Your task to perform on an android device: Search for flights from Mexico city to Boston Image 0: 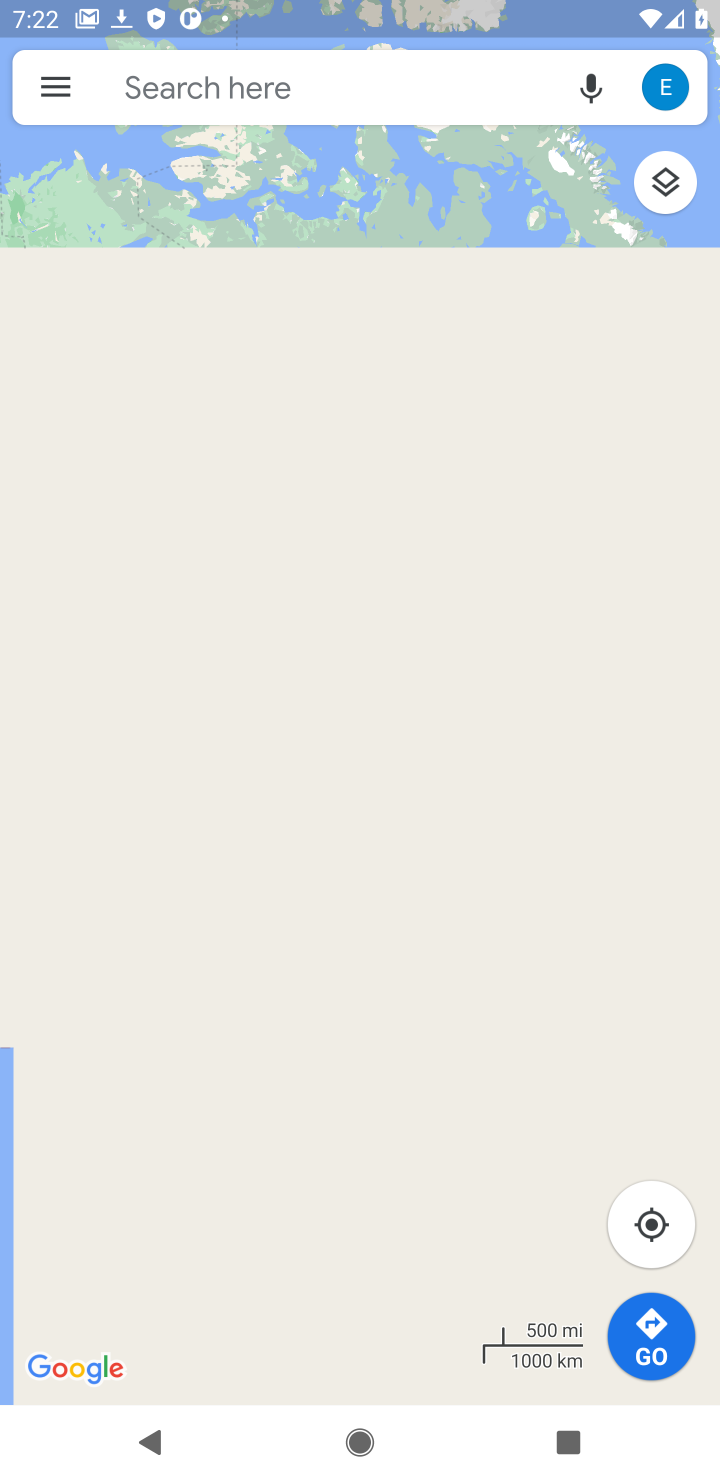
Step 0: press home button
Your task to perform on an android device: Search for flights from Mexico city to Boston Image 1: 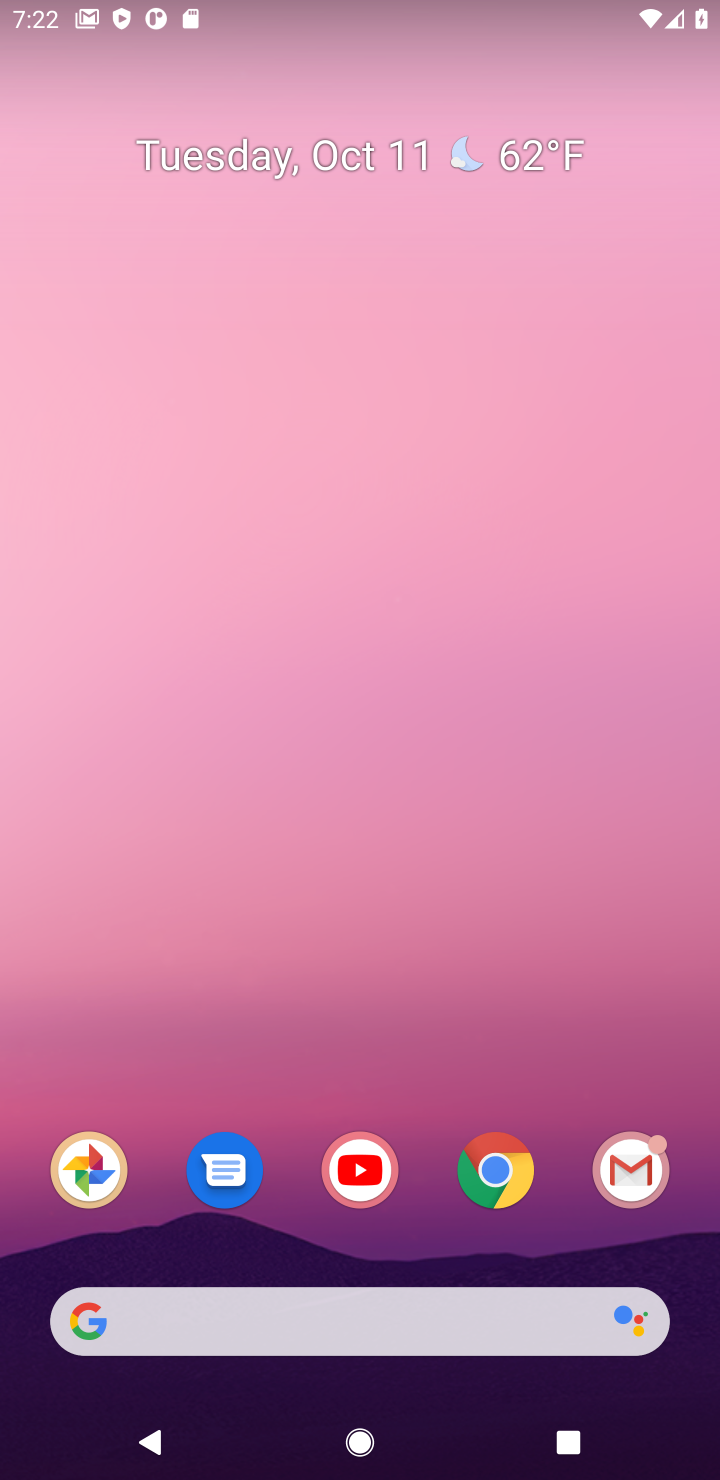
Step 1: drag from (329, 1378) to (357, 389)
Your task to perform on an android device: Search for flights from Mexico city to Boston Image 2: 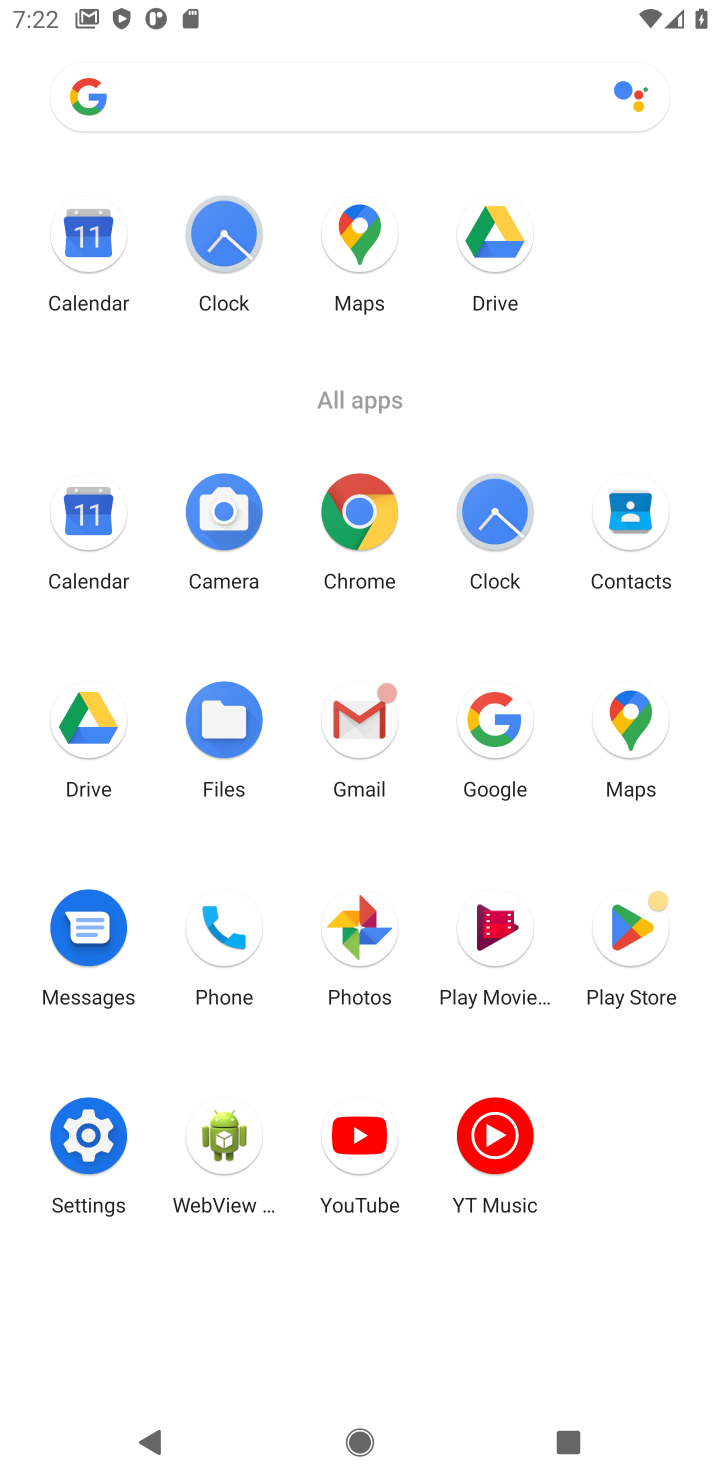
Step 2: click (483, 726)
Your task to perform on an android device: Search for flights from Mexico city to Boston Image 3: 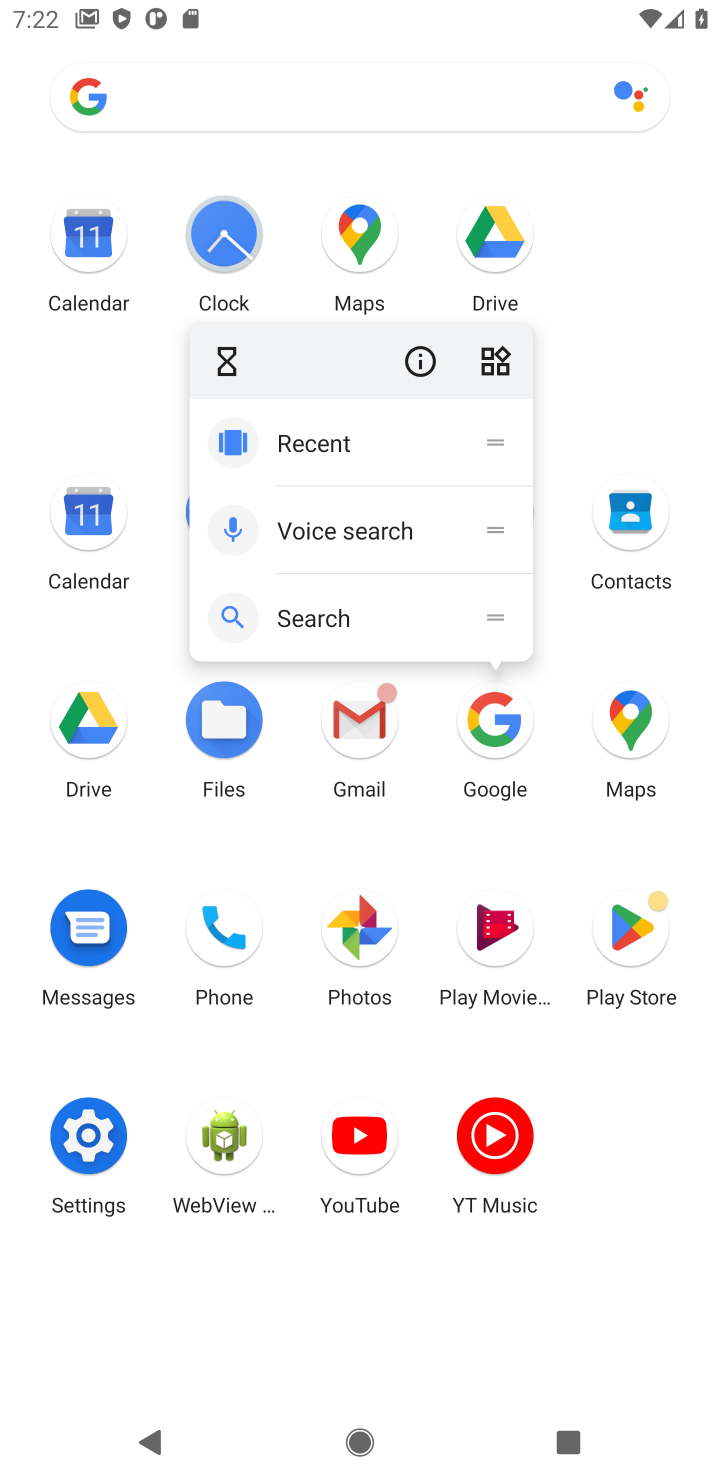
Step 3: click (494, 705)
Your task to perform on an android device: Search for flights from Mexico city to Boston Image 4: 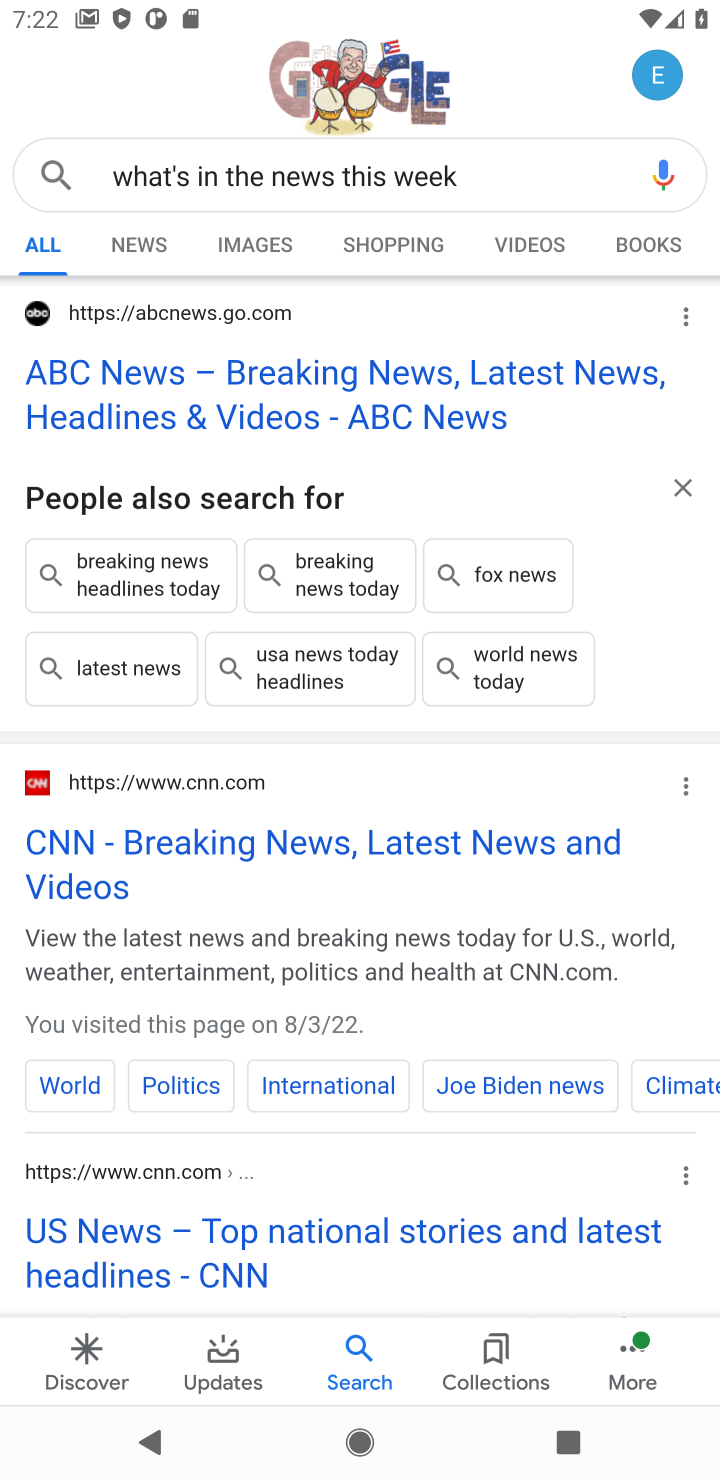
Step 4: click (416, 139)
Your task to perform on an android device: Search for flights from Mexico city to Boston Image 5: 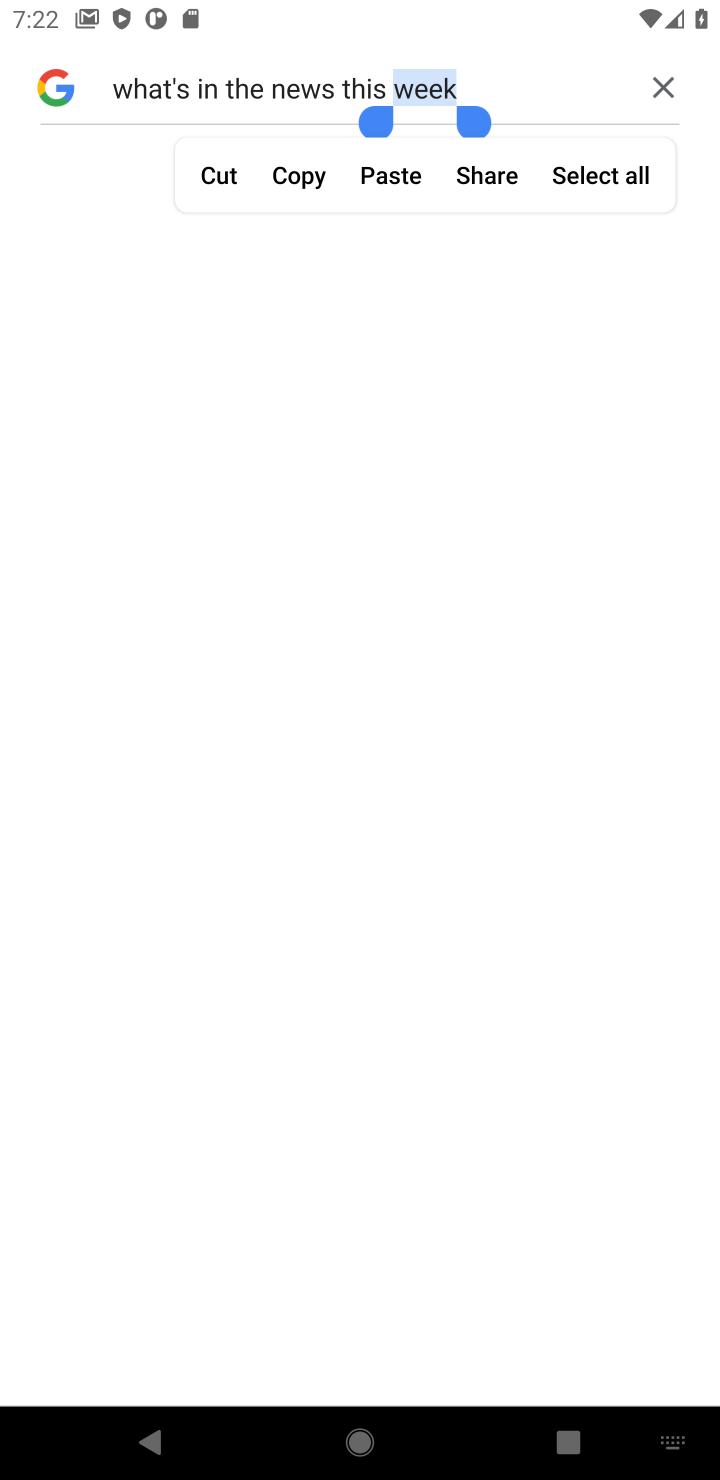
Step 5: click (455, 156)
Your task to perform on an android device: Search for flights from Mexico city to Boston Image 6: 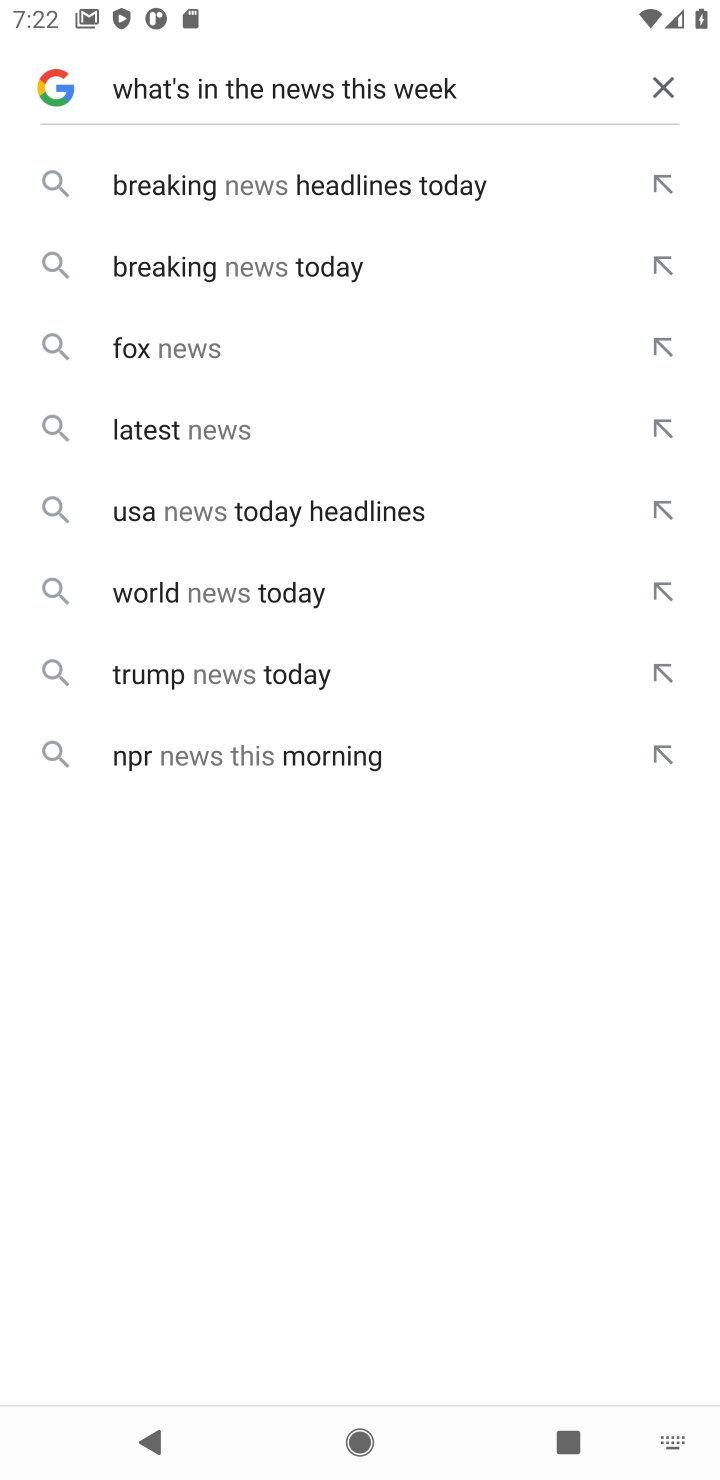
Step 6: click (663, 88)
Your task to perform on an android device: Search for flights from Mexico city to Boston Image 7: 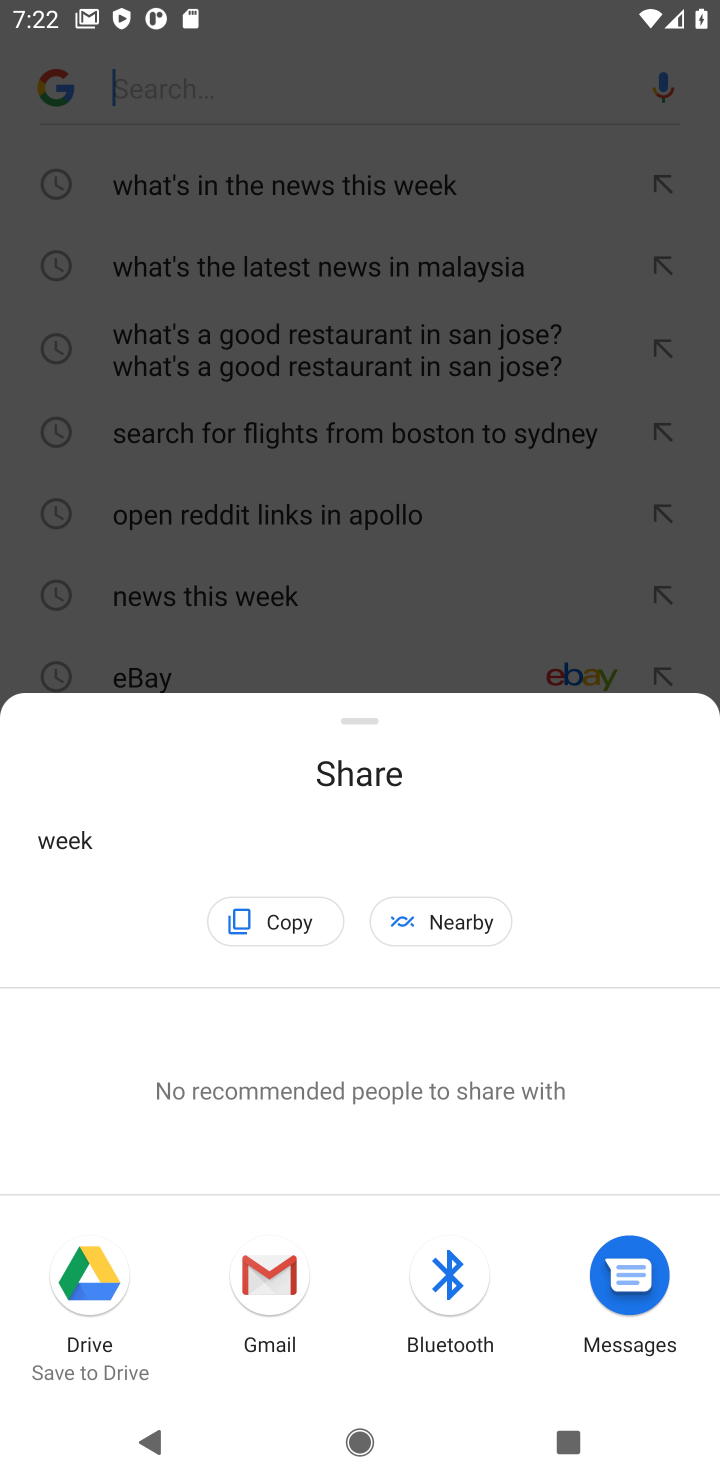
Step 7: press back button
Your task to perform on an android device: Search for flights from Mexico city to Boston Image 8: 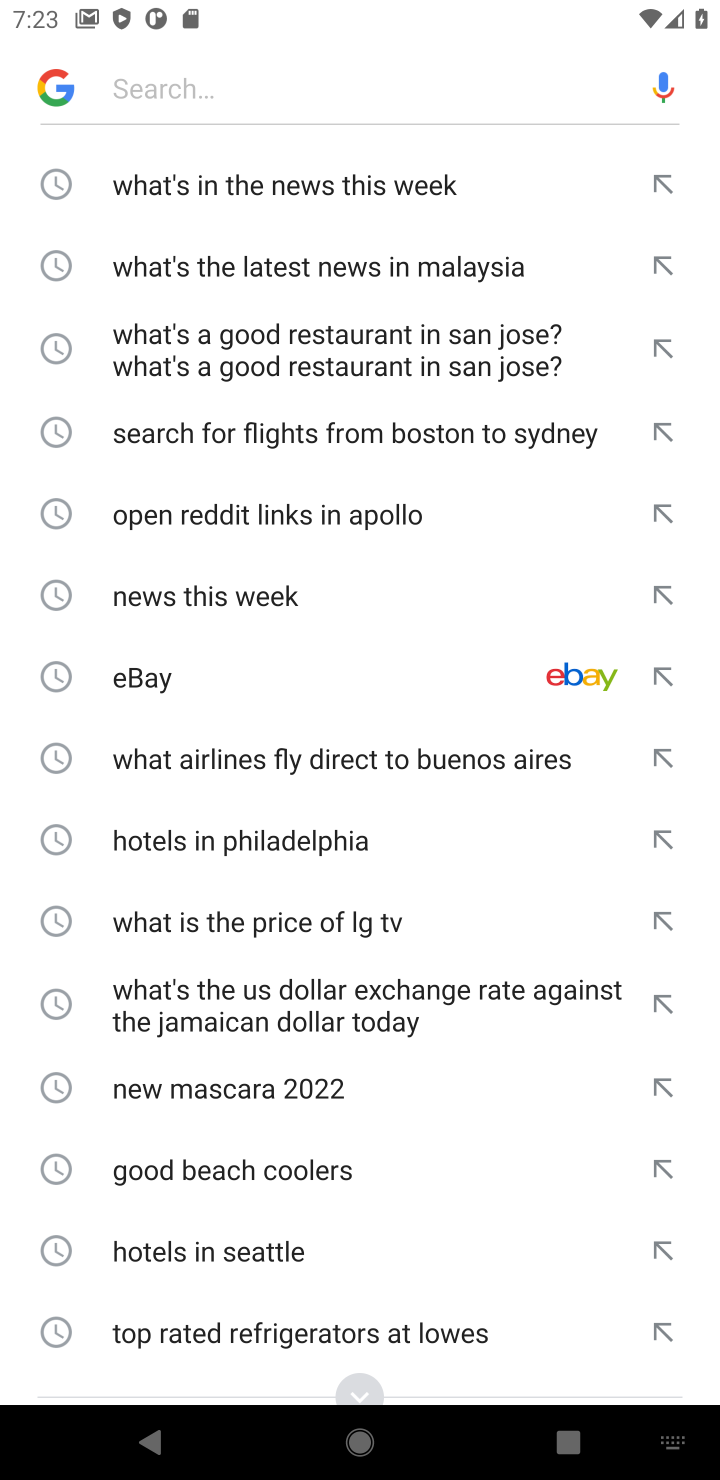
Step 8: click (408, 55)
Your task to perform on an android device: Search for flights from Mexico city to Boston Image 9: 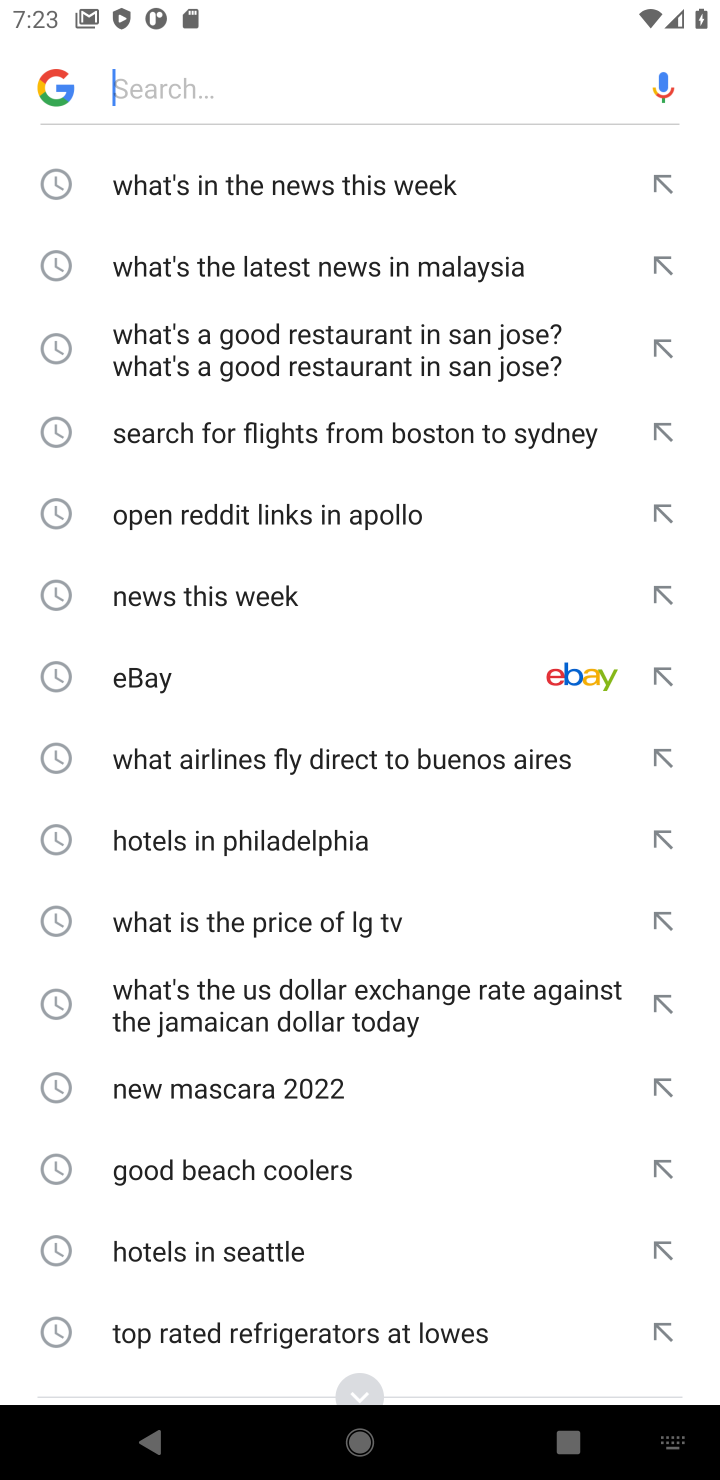
Step 9: type "Search for flights from Mexico city to Boston "
Your task to perform on an android device: Search for flights from Mexico city to Boston Image 10: 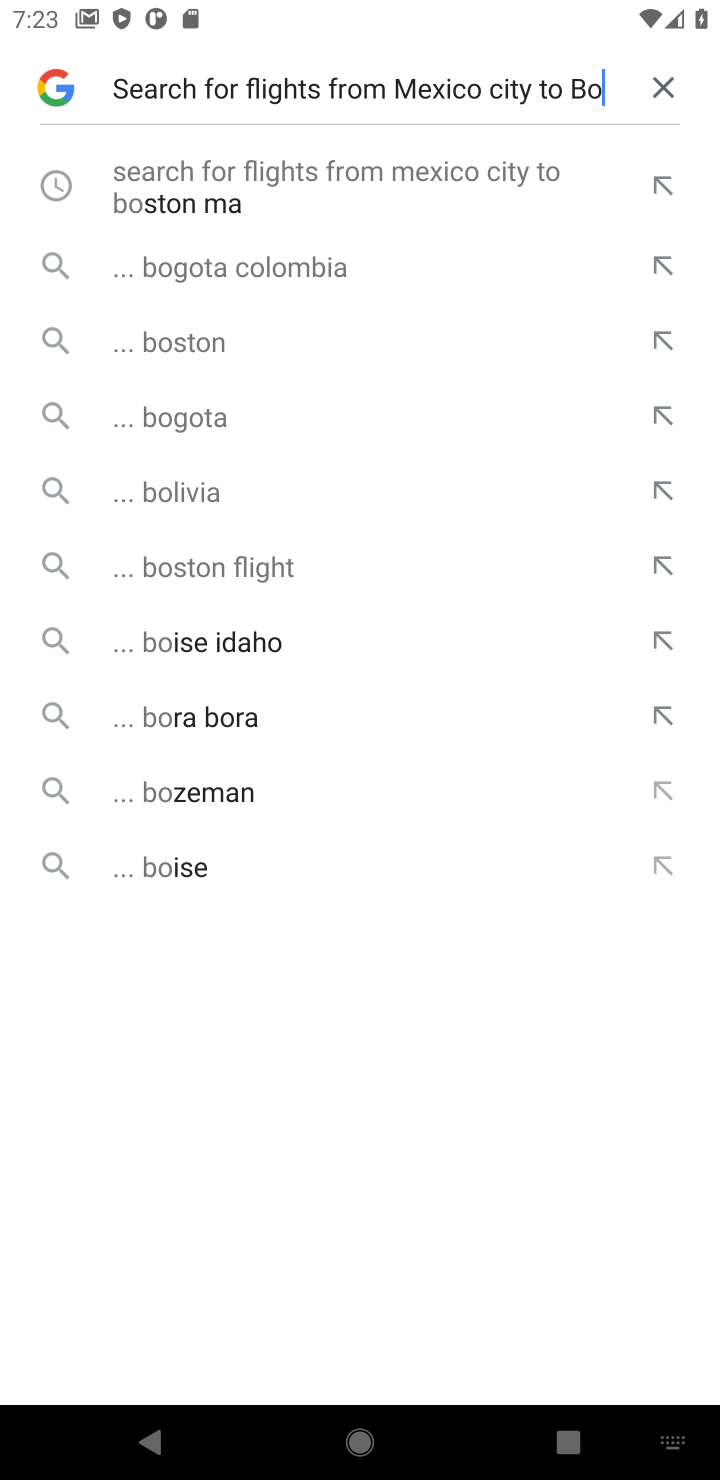
Step 10: click (324, 185)
Your task to perform on an android device: Search for flights from Mexico city to Boston Image 11: 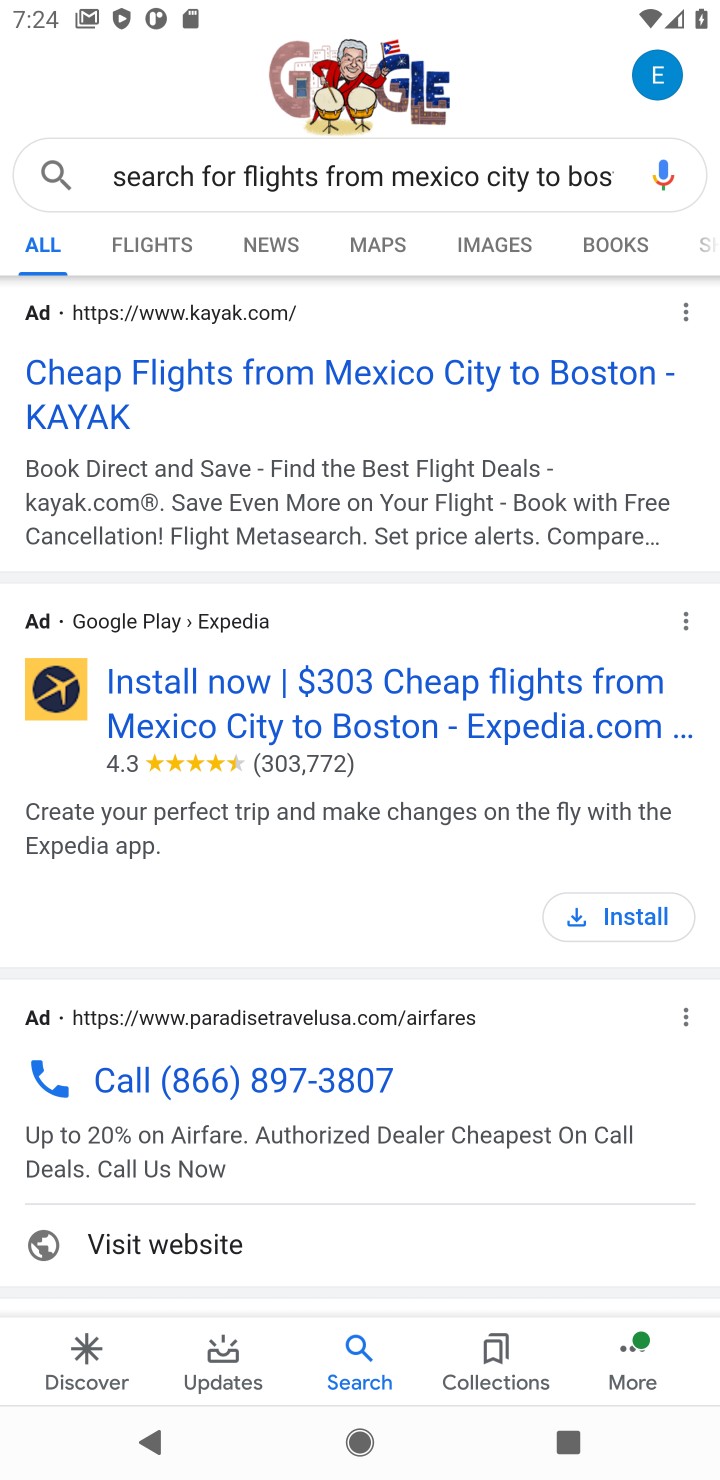
Step 11: click (317, 378)
Your task to perform on an android device: Search for flights from Mexico city to Boston Image 12: 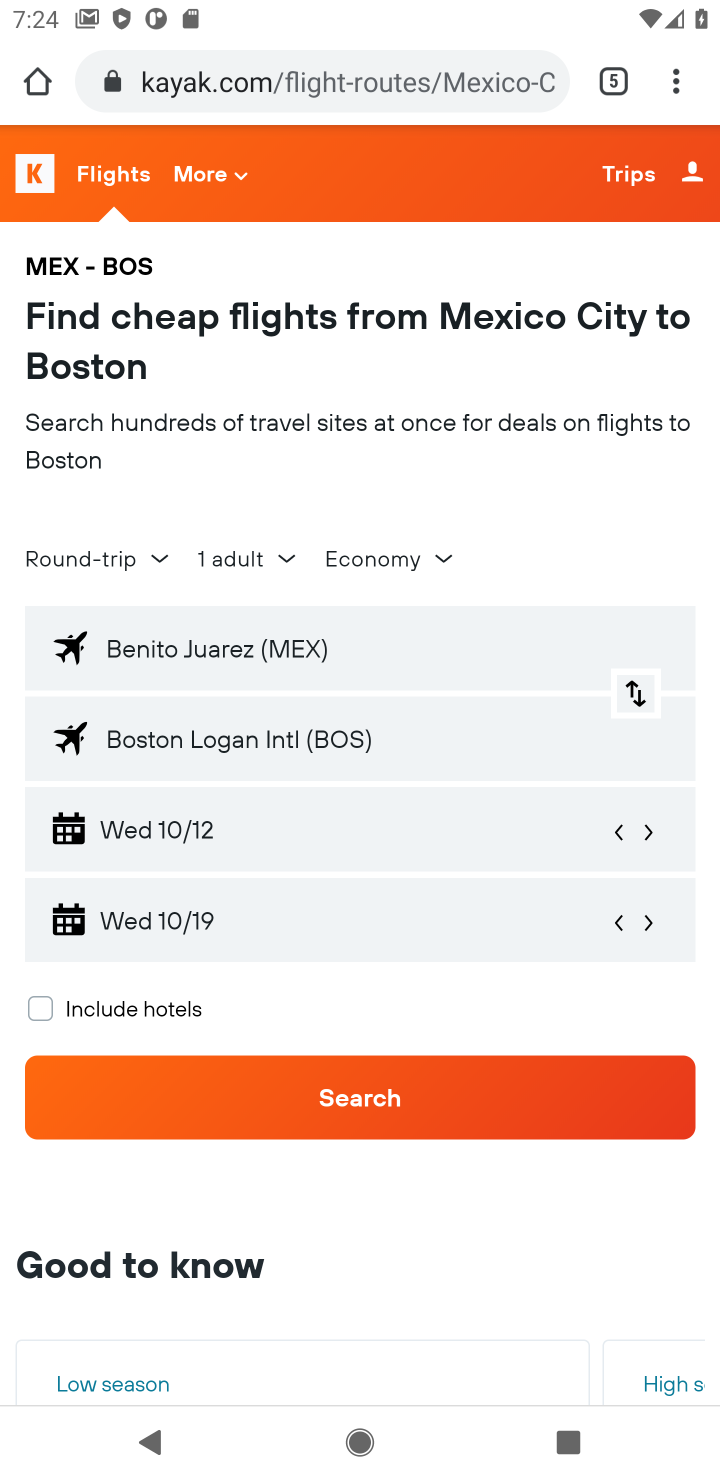
Step 12: click (334, 1100)
Your task to perform on an android device: Search for flights from Mexico city to Boston Image 13: 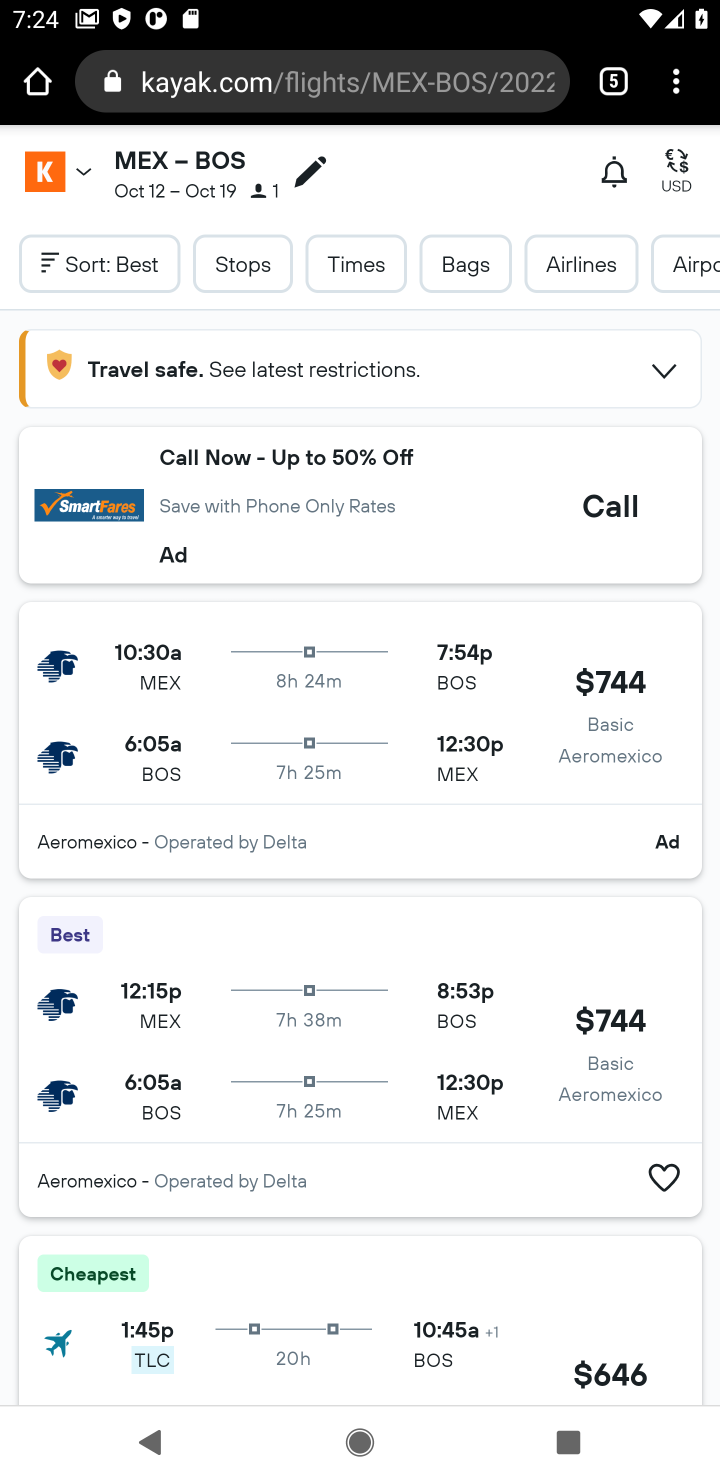
Step 13: task complete